Your task to perform on an android device: Open my contact list Image 0: 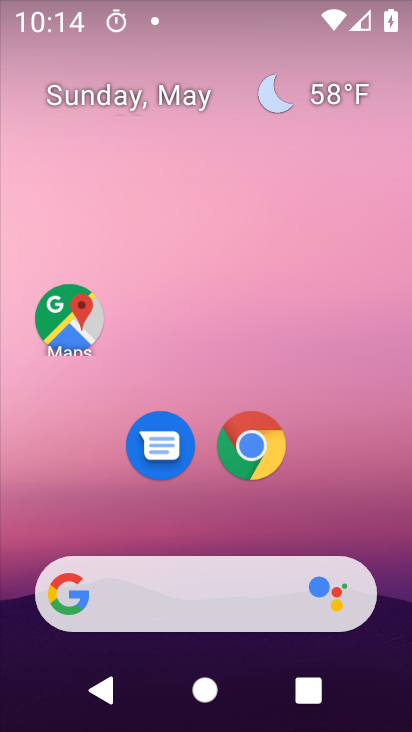
Step 0: drag from (354, 528) to (243, 34)
Your task to perform on an android device: Open my contact list Image 1: 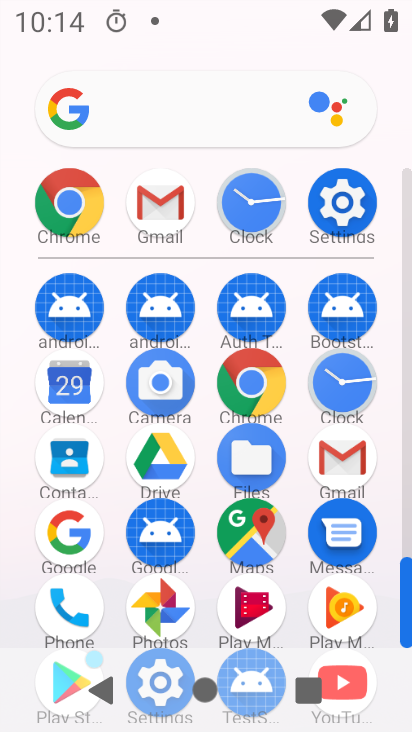
Step 1: drag from (20, 537) to (18, 241)
Your task to perform on an android device: Open my contact list Image 2: 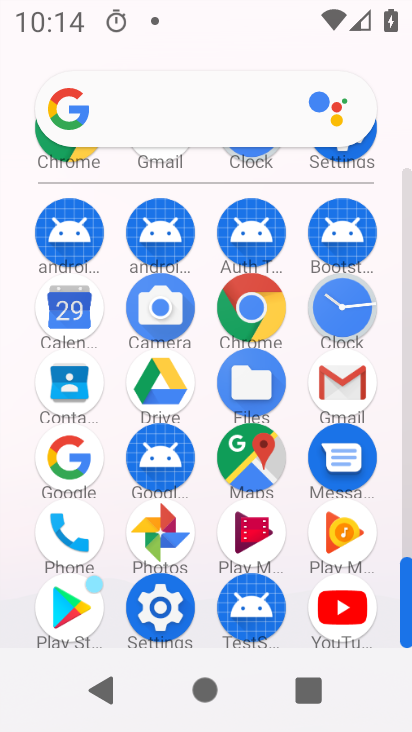
Step 2: click (69, 375)
Your task to perform on an android device: Open my contact list Image 3: 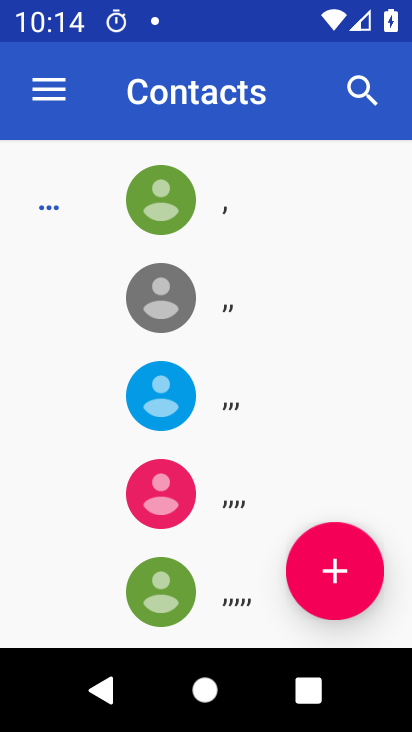
Step 3: drag from (253, 548) to (257, 192)
Your task to perform on an android device: Open my contact list Image 4: 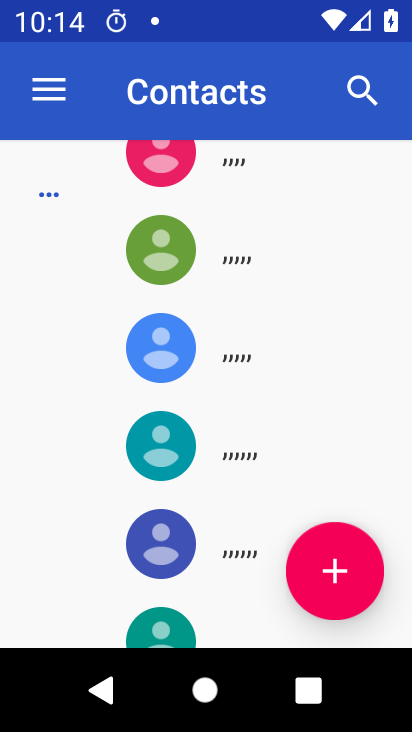
Step 4: drag from (281, 475) to (258, 143)
Your task to perform on an android device: Open my contact list Image 5: 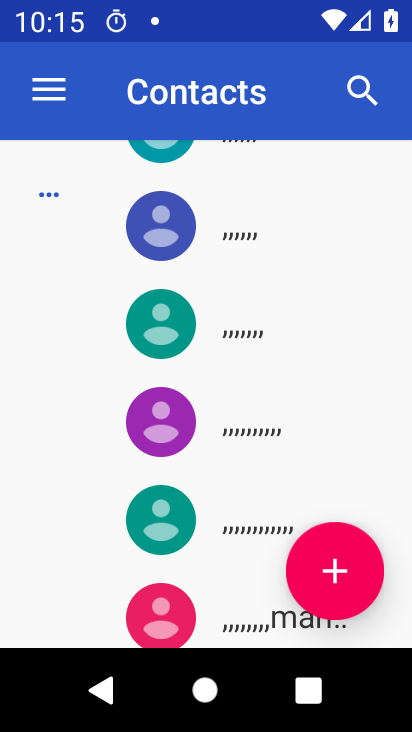
Step 5: click (216, 177)
Your task to perform on an android device: Open my contact list Image 6: 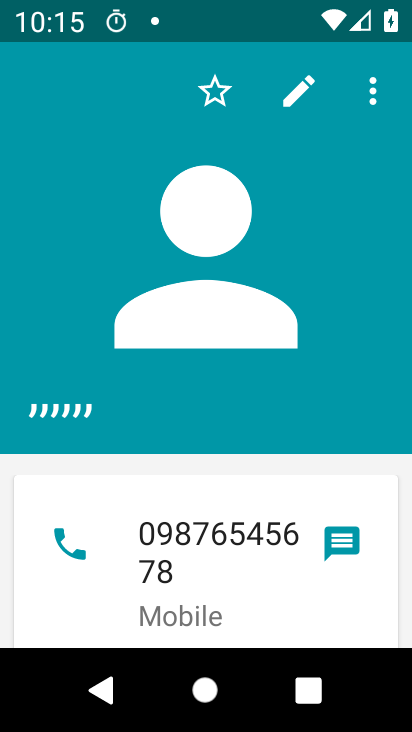
Step 6: task complete